Your task to perform on an android device: Open Google Chrome Image 0: 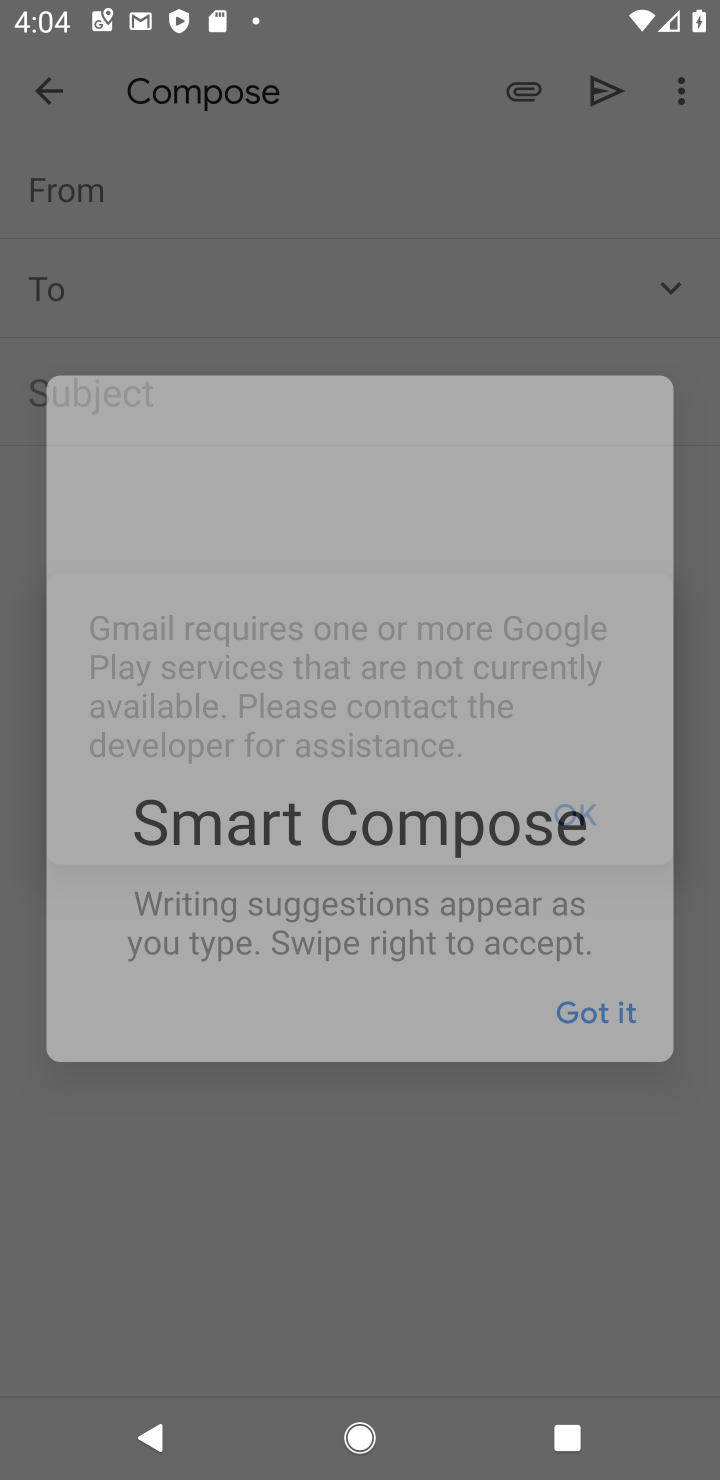
Step 0: press home button
Your task to perform on an android device: Open Google Chrome Image 1: 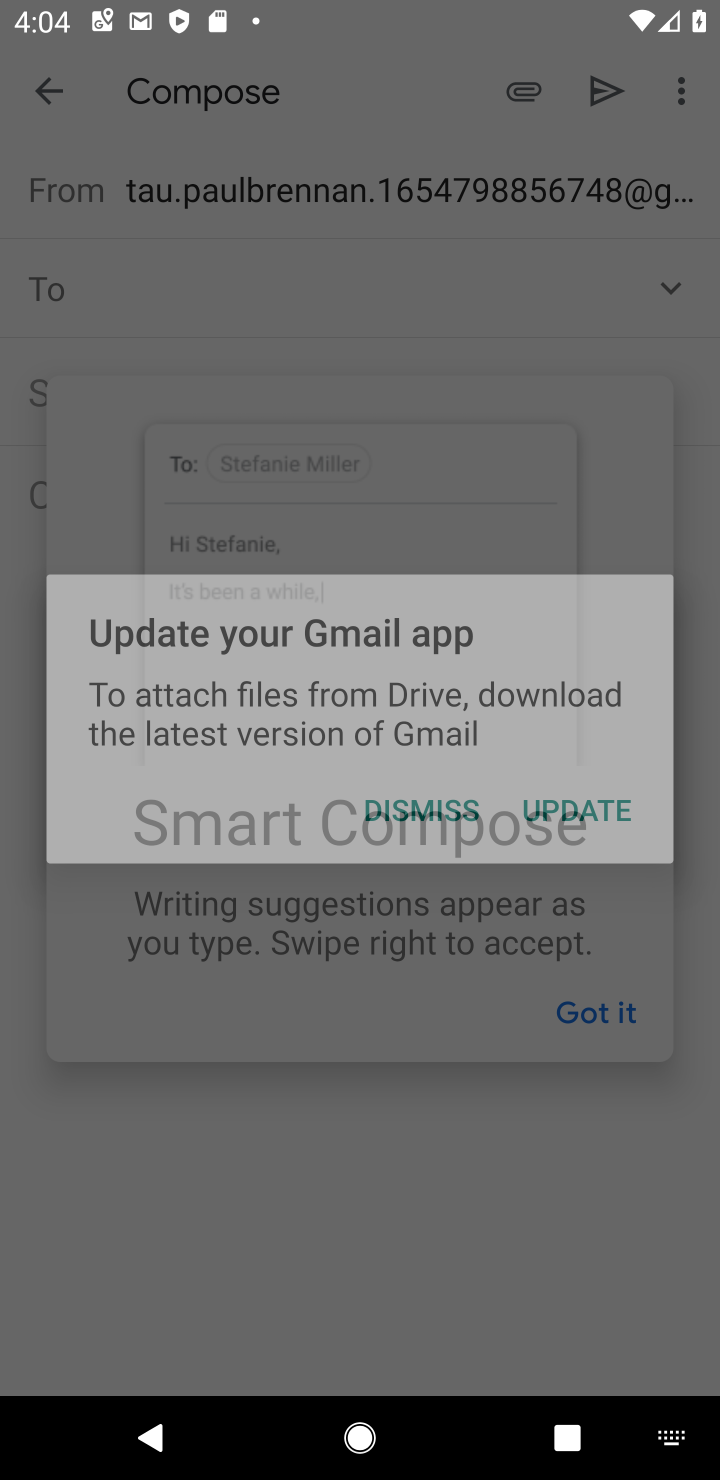
Step 1: click (622, 213)
Your task to perform on an android device: Open Google Chrome Image 2: 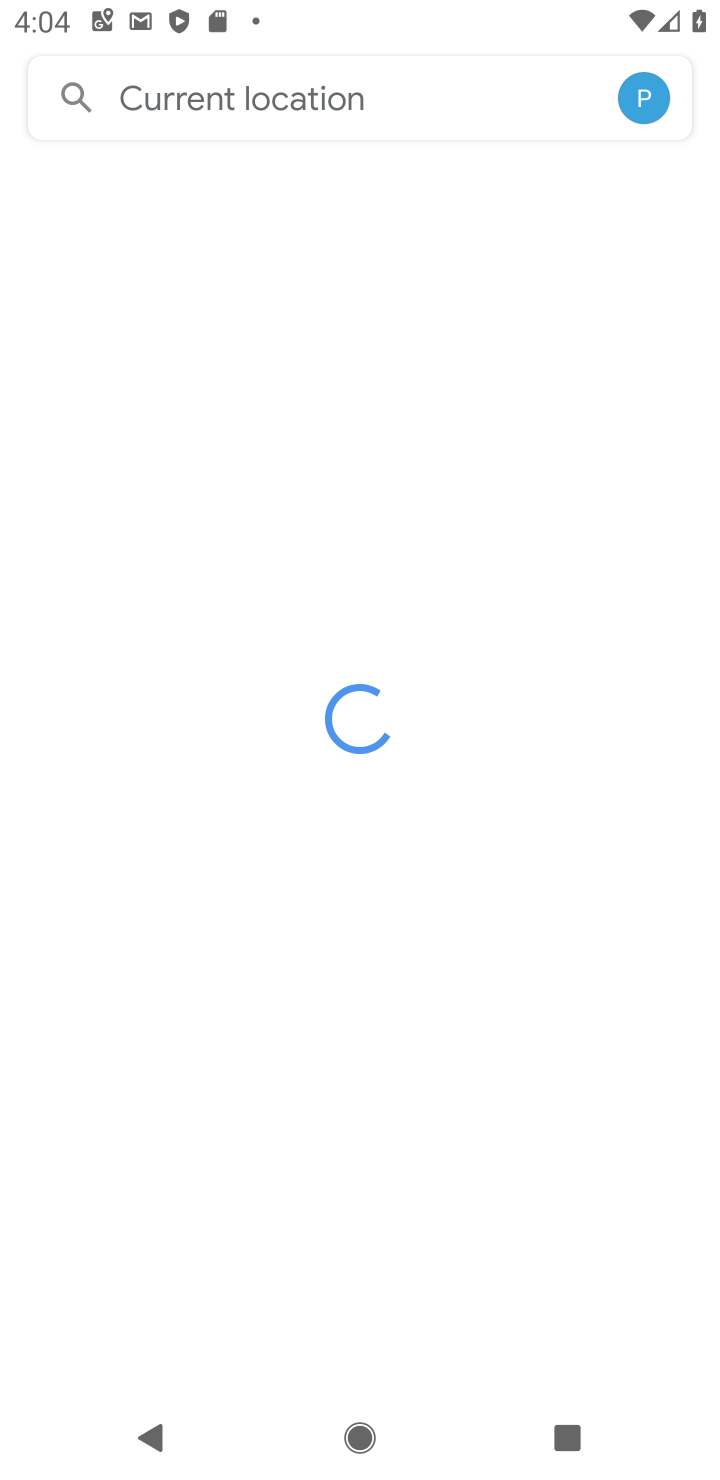
Step 2: drag from (383, 1226) to (403, 194)
Your task to perform on an android device: Open Google Chrome Image 3: 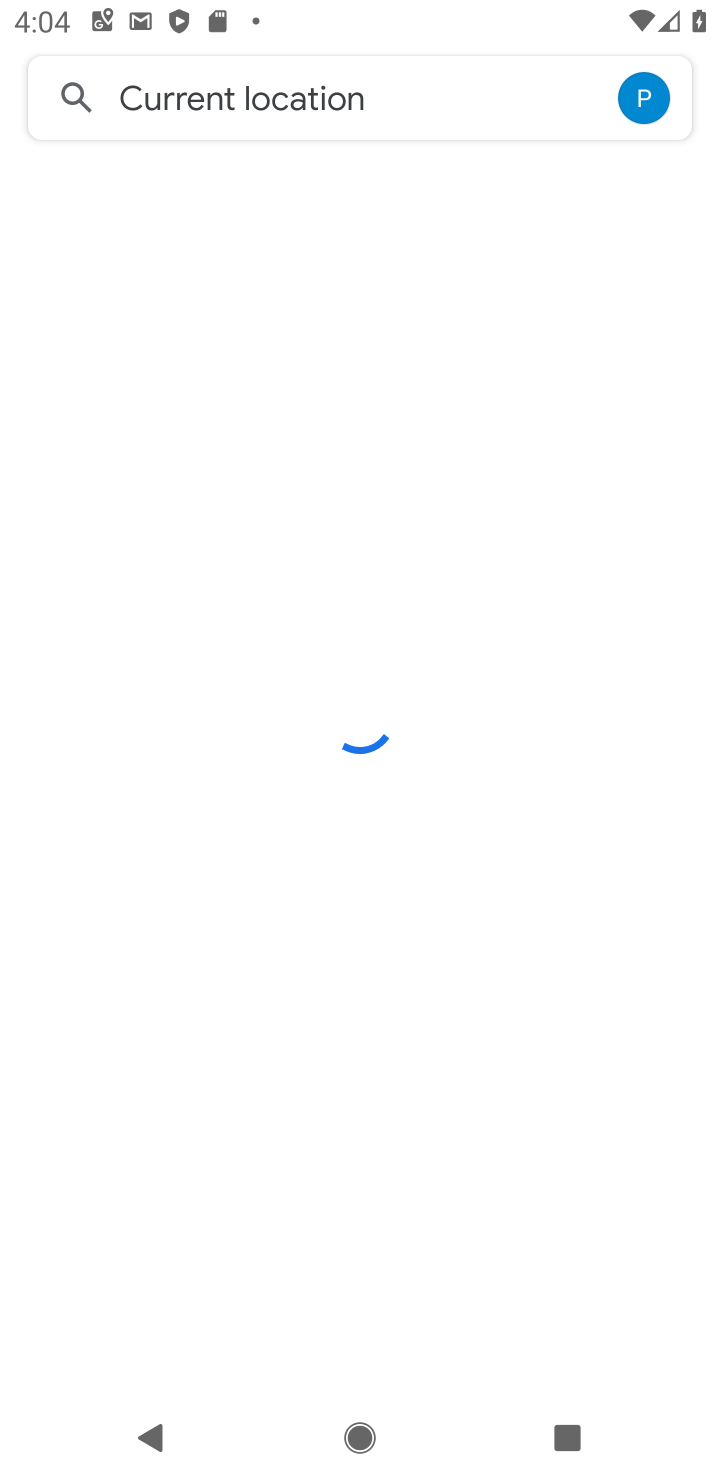
Step 3: press home button
Your task to perform on an android device: Open Google Chrome Image 4: 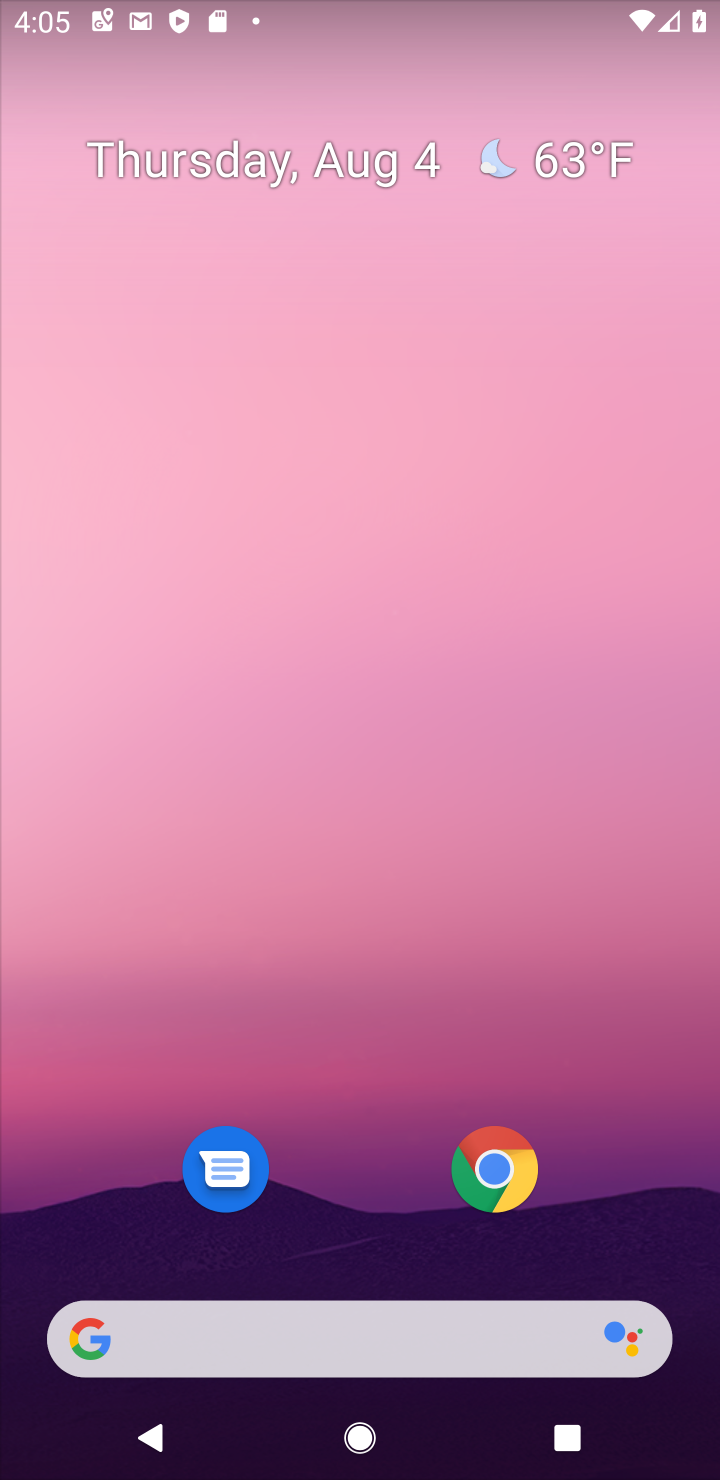
Step 4: click (488, 1175)
Your task to perform on an android device: Open Google Chrome Image 5: 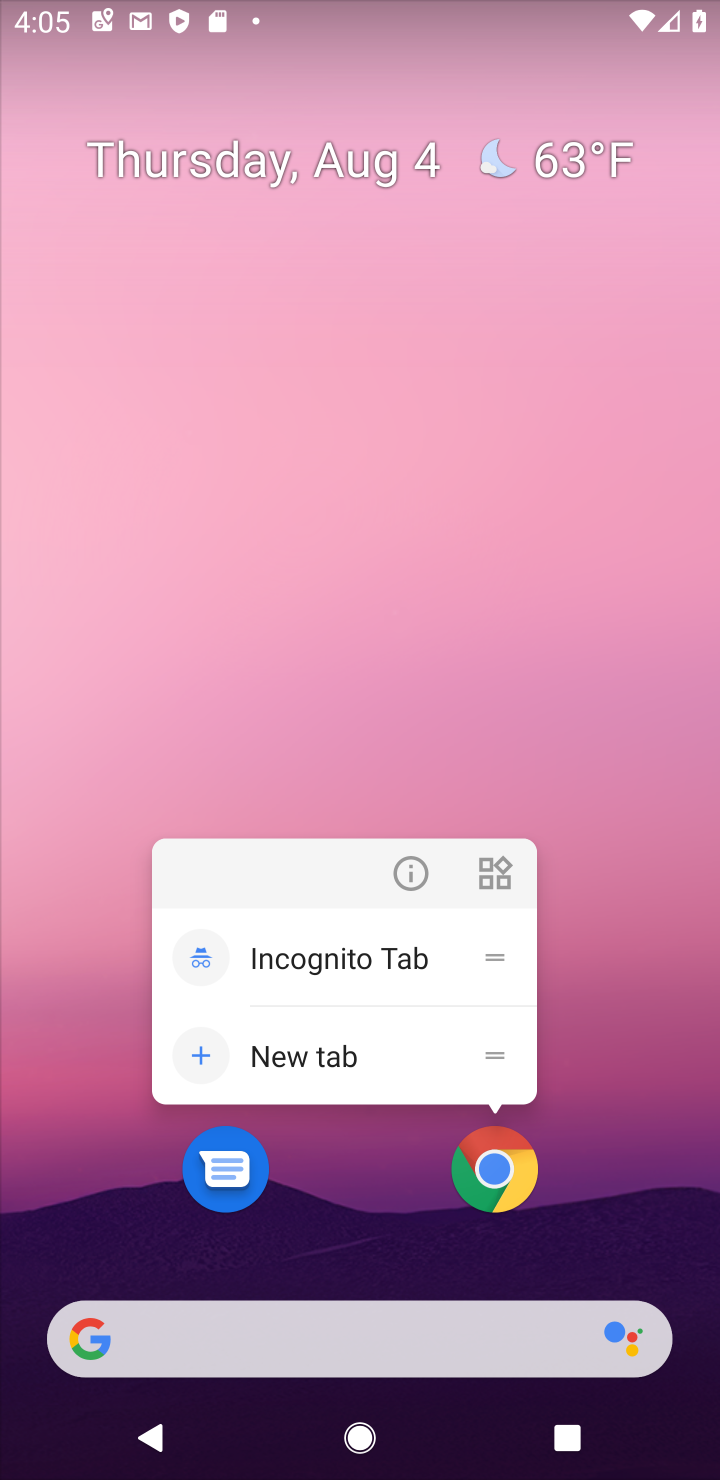
Step 5: click (488, 1185)
Your task to perform on an android device: Open Google Chrome Image 6: 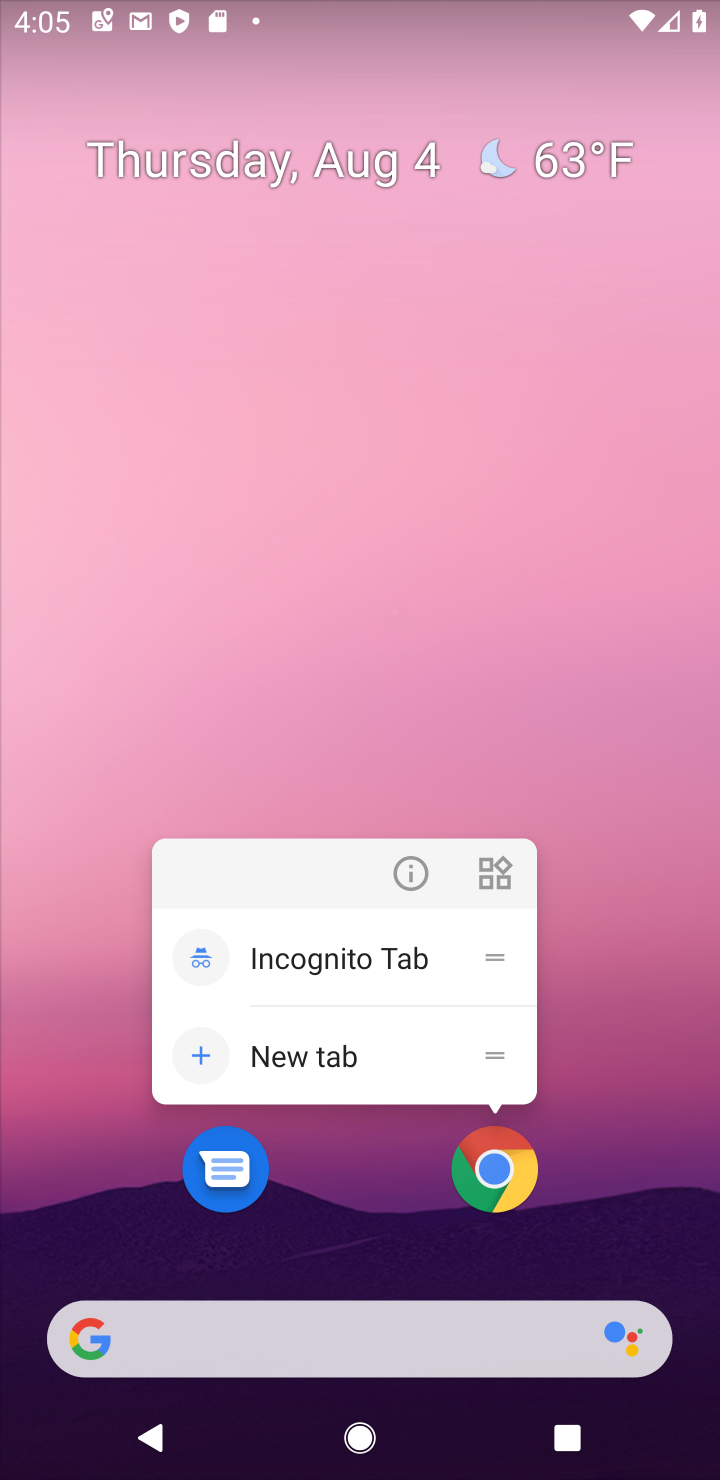
Step 6: click (470, 1177)
Your task to perform on an android device: Open Google Chrome Image 7: 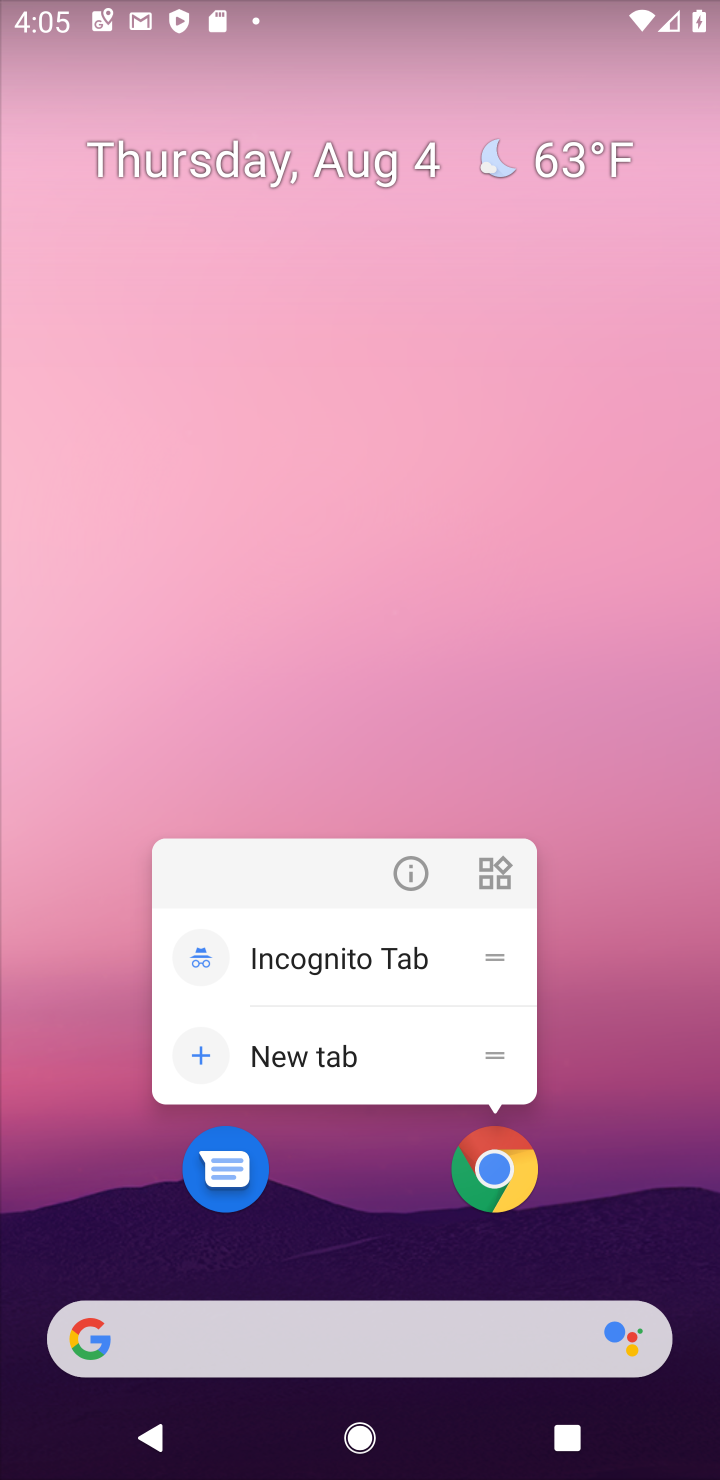
Step 7: click (521, 1183)
Your task to perform on an android device: Open Google Chrome Image 8: 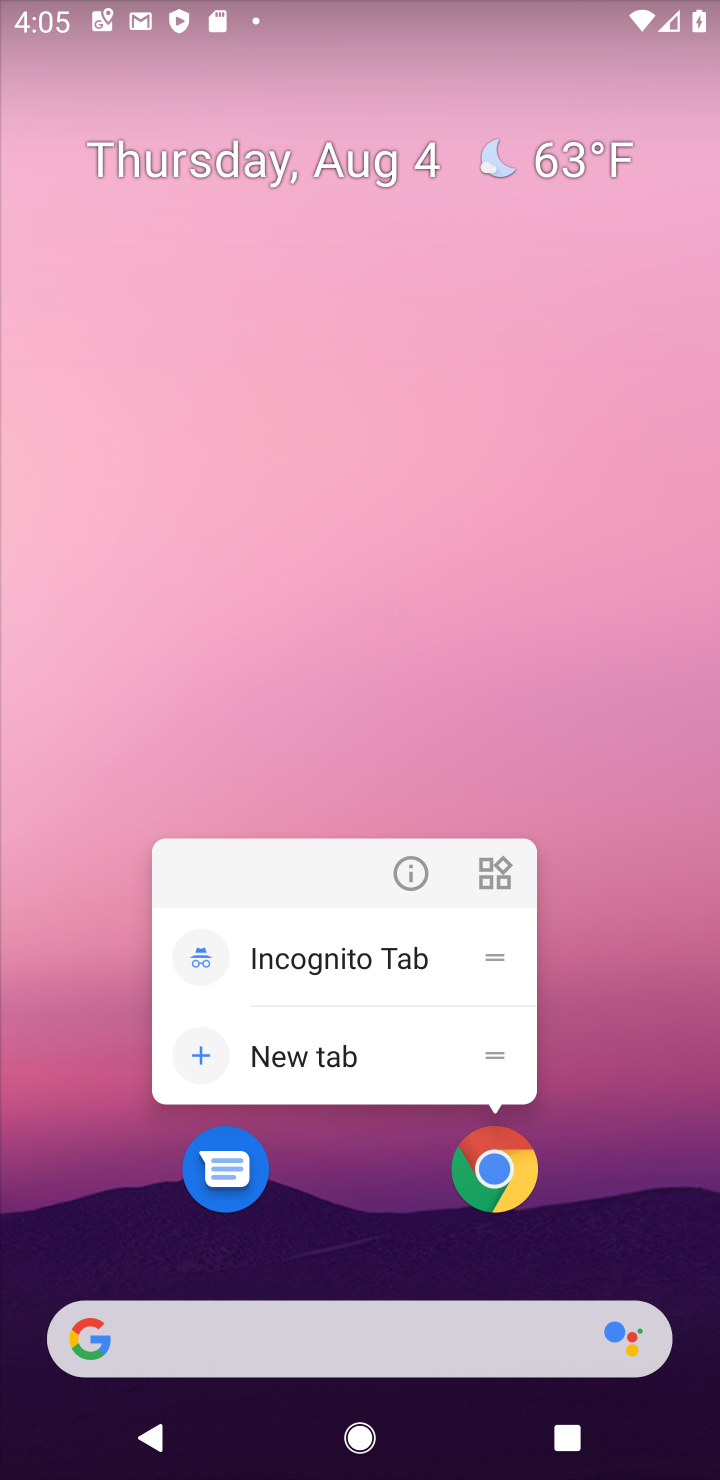
Step 8: click (521, 1183)
Your task to perform on an android device: Open Google Chrome Image 9: 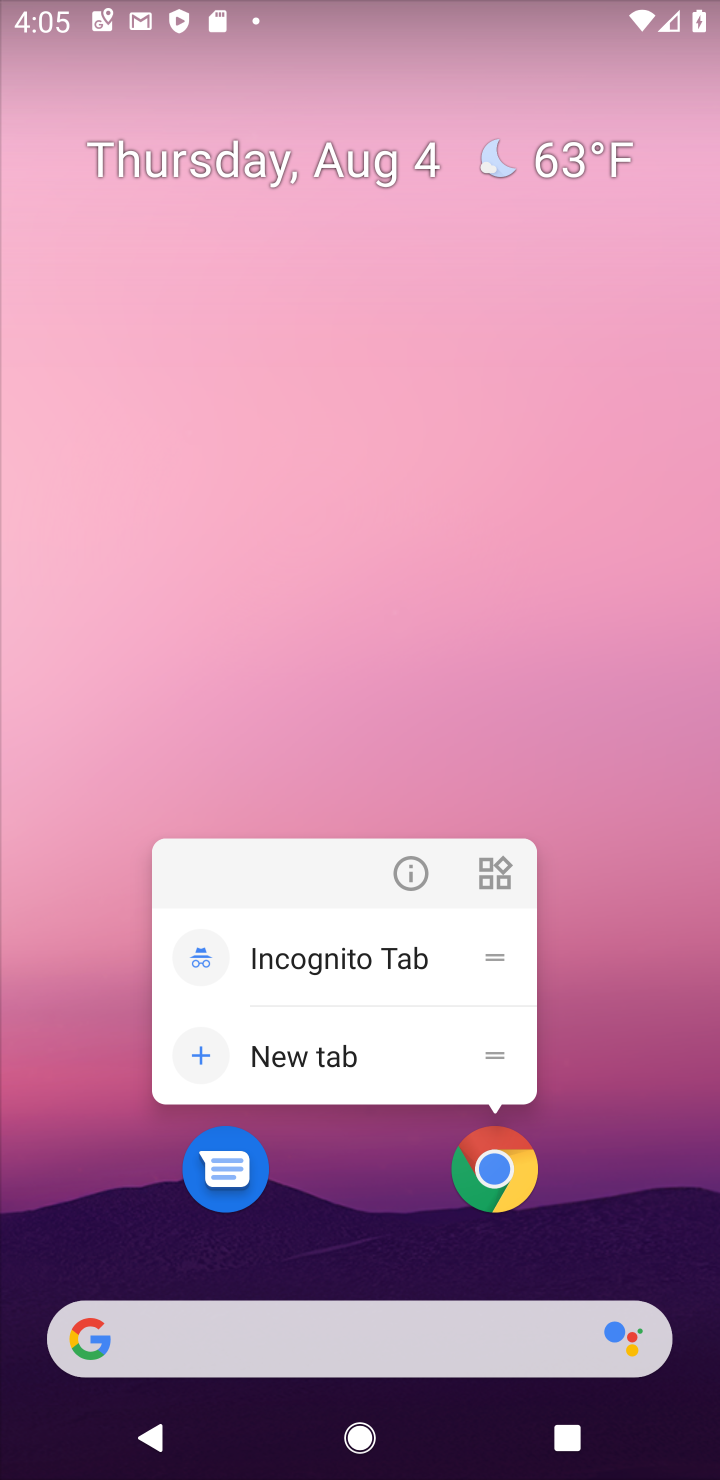
Step 9: click (519, 1183)
Your task to perform on an android device: Open Google Chrome Image 10: 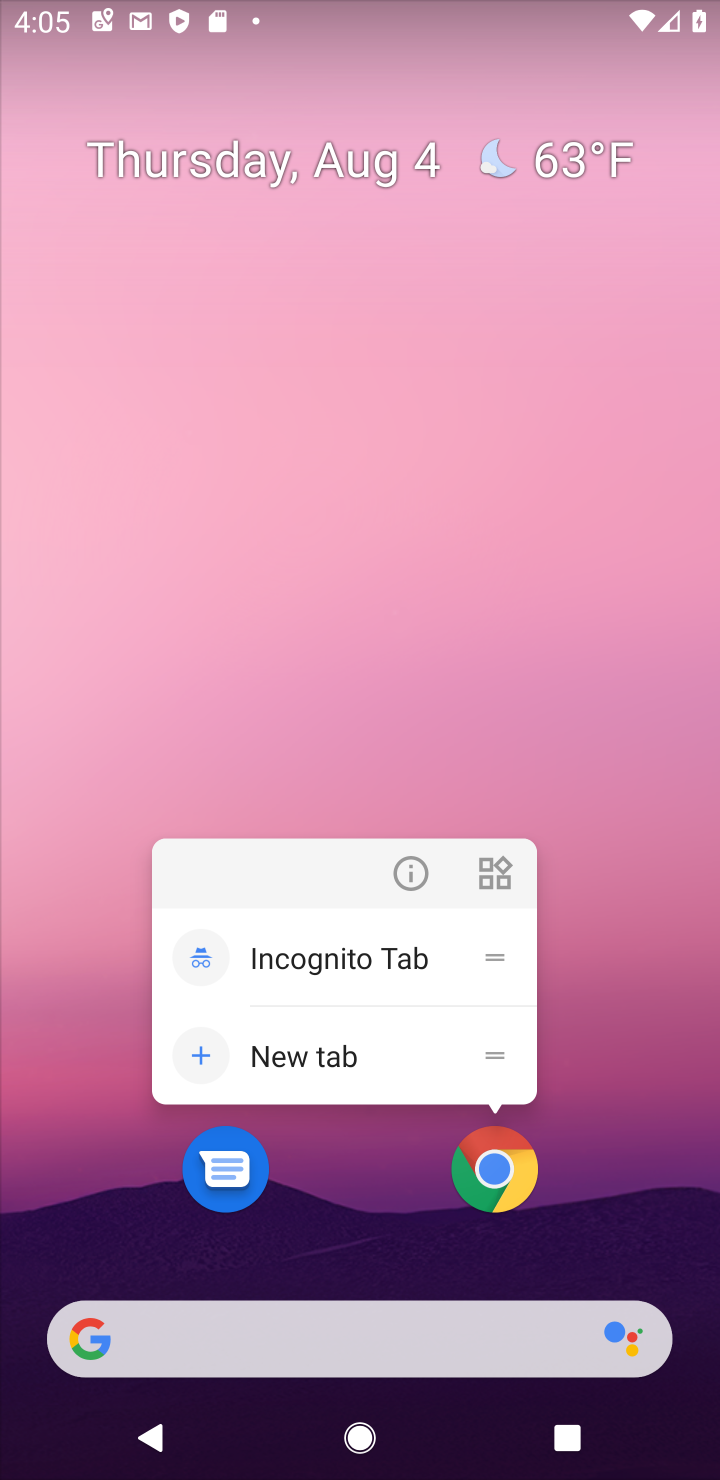
Step 10: click (475, 1183)
Your task to perform on an android device: Open Google Chrome Image 11: 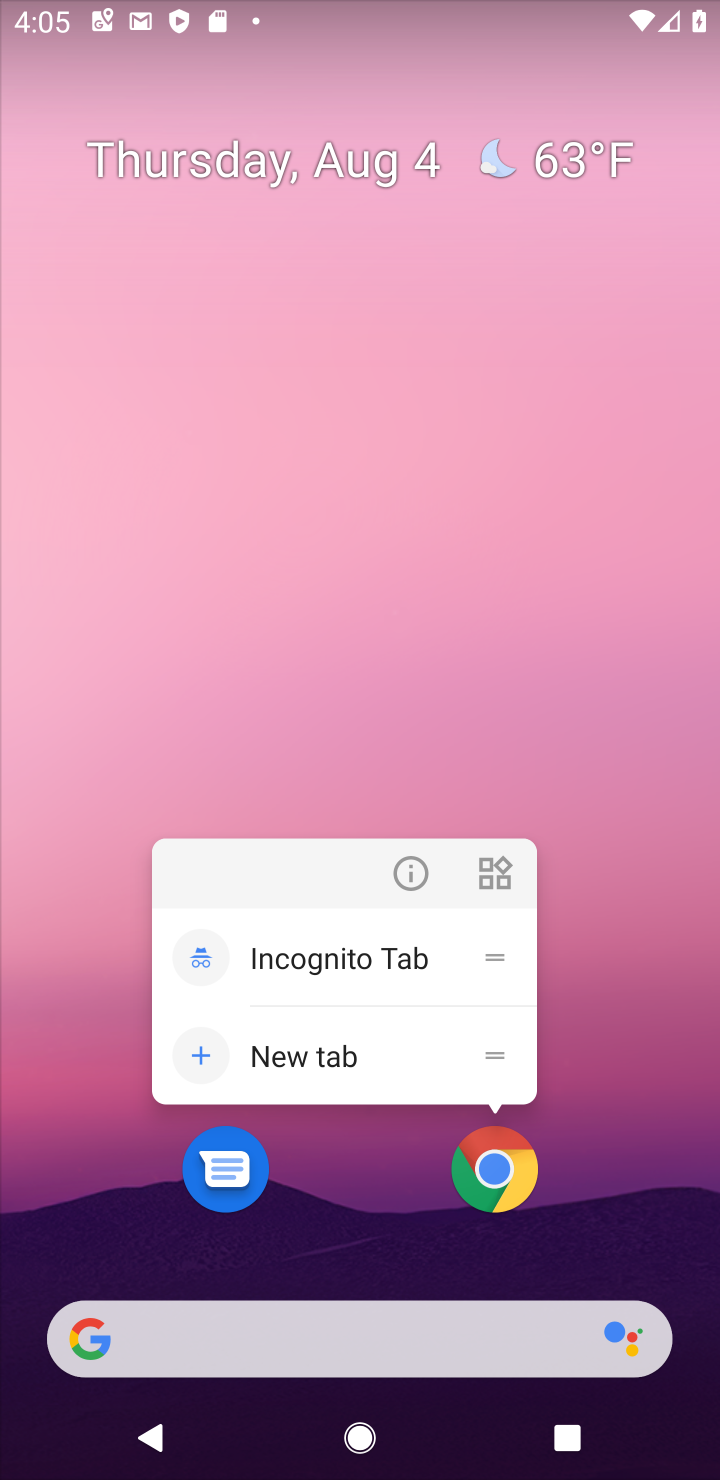
Step 11: click (475, 1183)
Your task to perform on an android device: Open Google Chrome Image 12: 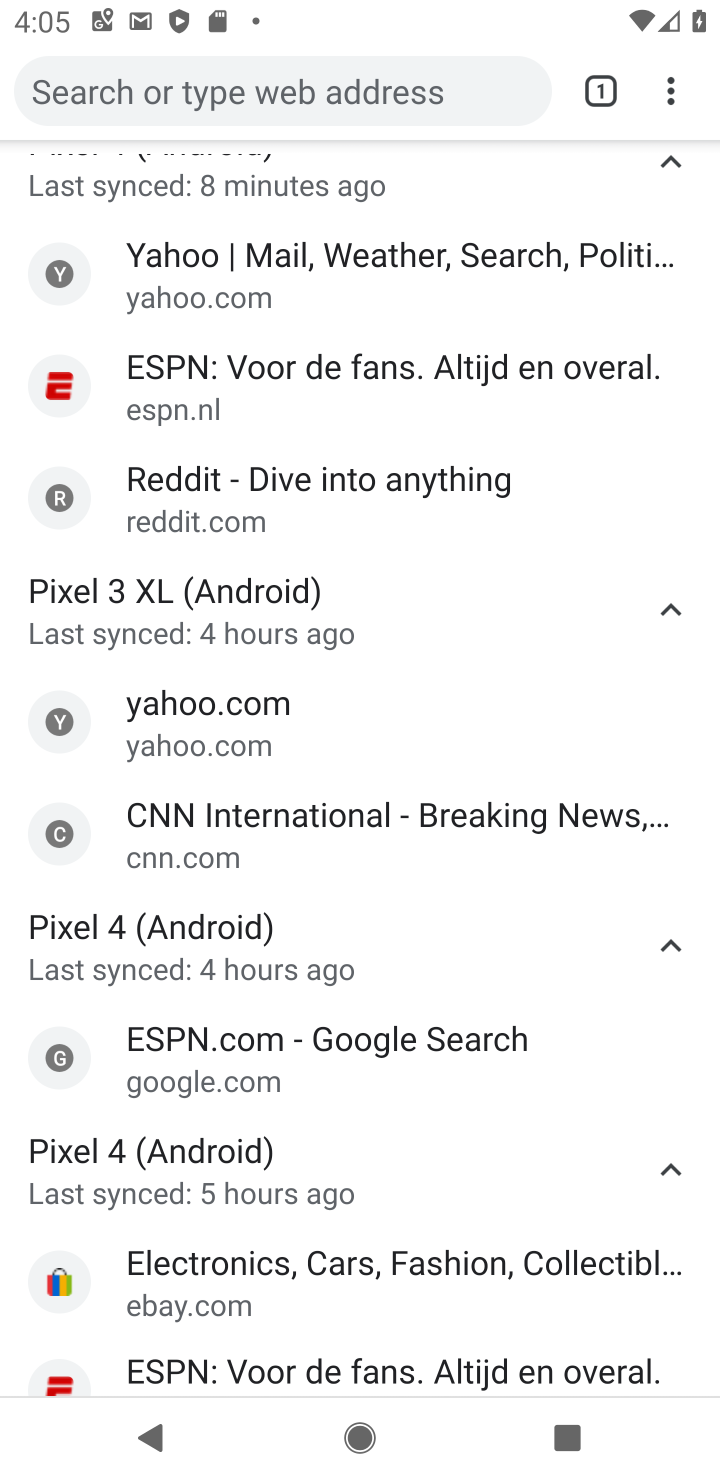
Step 12: task complete